Your task to perform on an android device: search for starred emails in the gmail app Image 0: 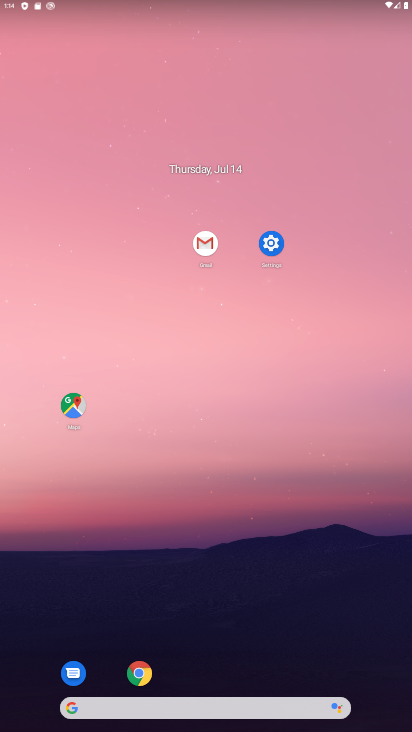
Step 0: click (204, 246)
Your task to perform on an android device: search for starred emails in the gmail app Image 1: 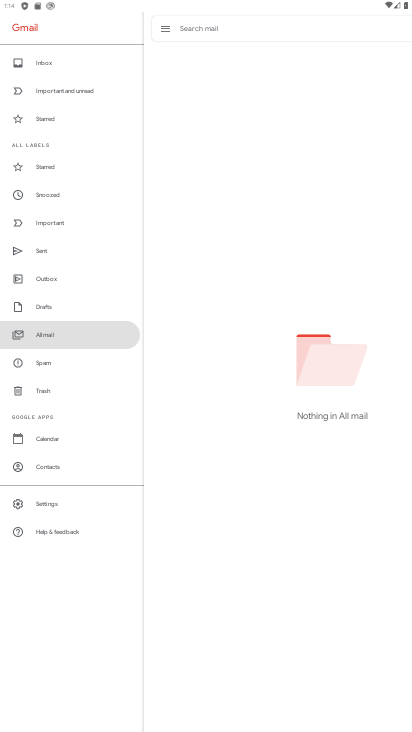
Step 1: click (65, 115)
Your task to perform on an android device: search for starred emails in the gmail app Image 2: 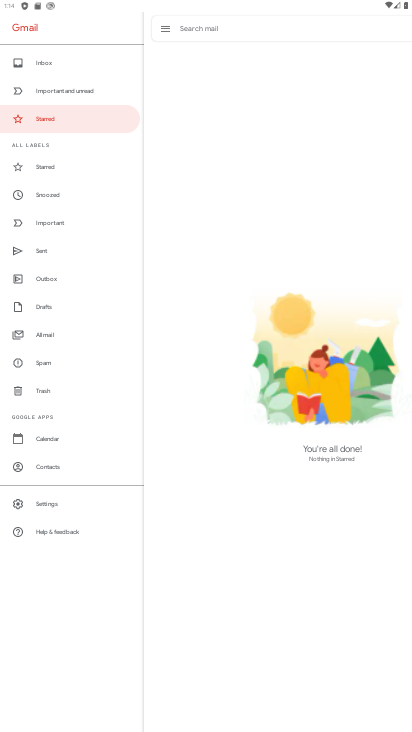
Step 2: task complete